Your task to perform on an android device: open the mobile data screen to see how much data has been used Image 0: 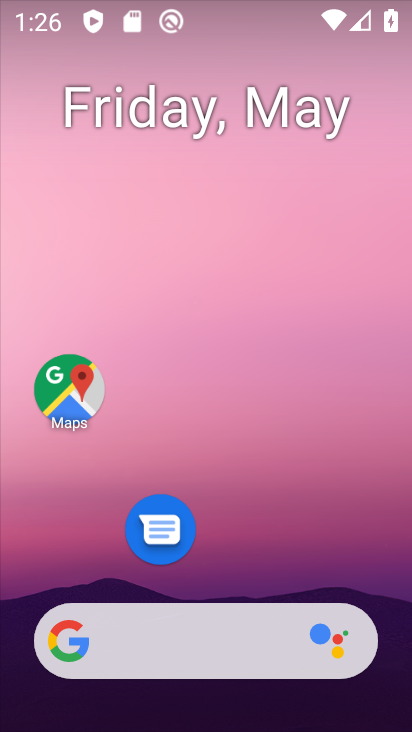
Step 0: drag from (211, 55) to (103, 41)
Your task to perform on an android device: open the mobile data screen to see how much data has been used Image 1: 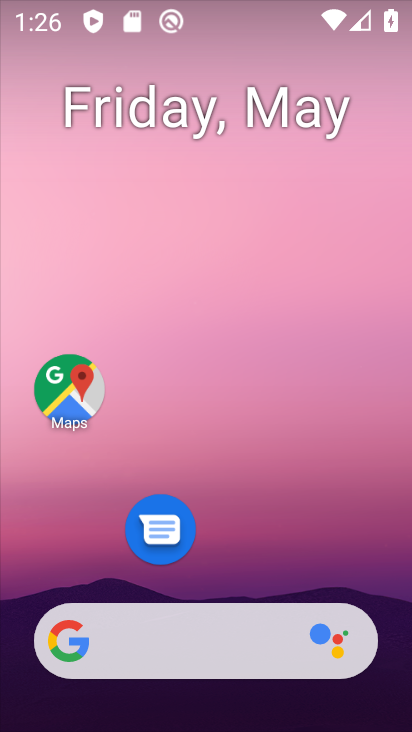
Step 1: drag from (202, 559) to (160, 31)
Your task to perform on an android device: open the mobile data screen to see how much data has been used Image 2: 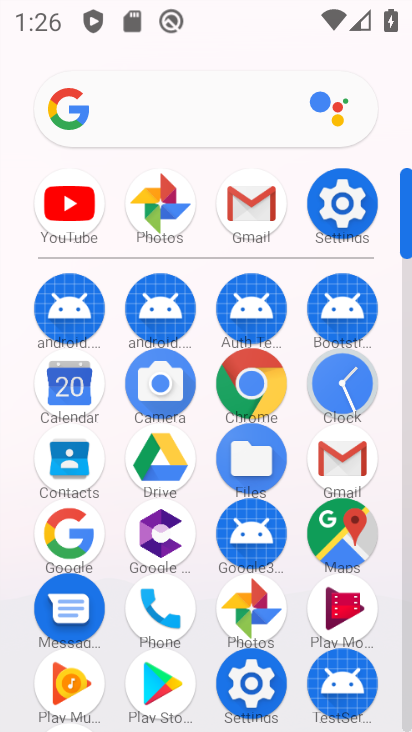
Step 2: click (347, 206)
Your task to perform on an android device: open the mobile data screen to see how much data has been used Image 3: 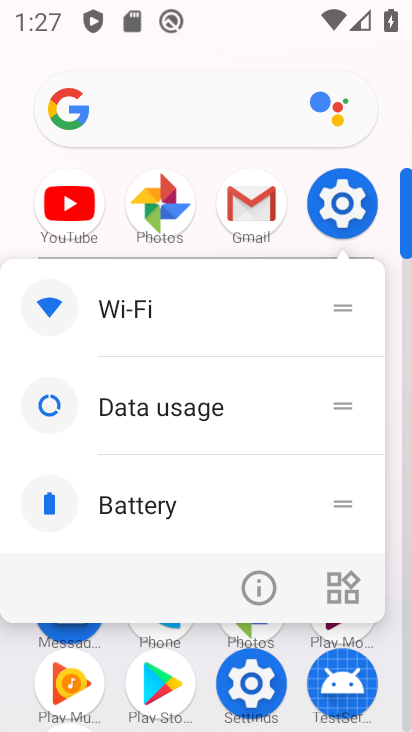
Step 3: click (265, 583)
Your task to perform on an android device: open the mobile data screen to see how much data has been used Image 4: 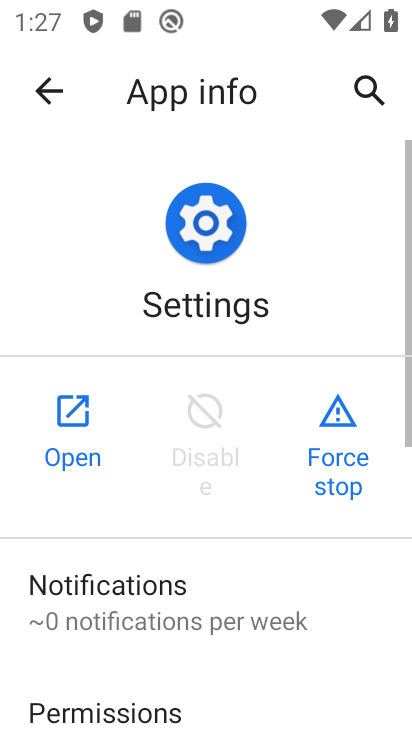
Step 4: click (81, 415)
Your task to perform on an android device: open the mobile data screen to see how much data has been used Image 5: 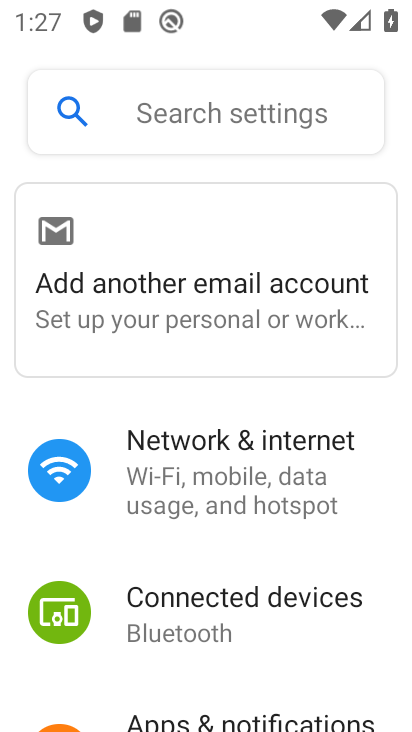
Step 5: drag from (233, 668) to (254, 445)
Your task to perform on an android device: open the mobile data screen to see how much data has been used Image 6: 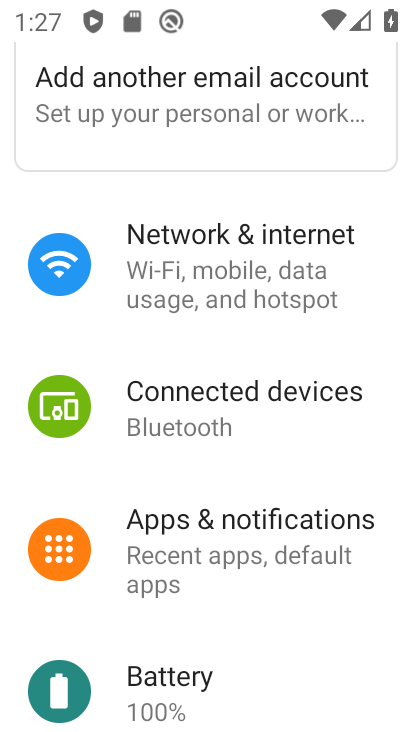
Step 6: click (179, 274)
Your task to perform on an android device: open the mobile data screen to see how much data has been used Image 7: 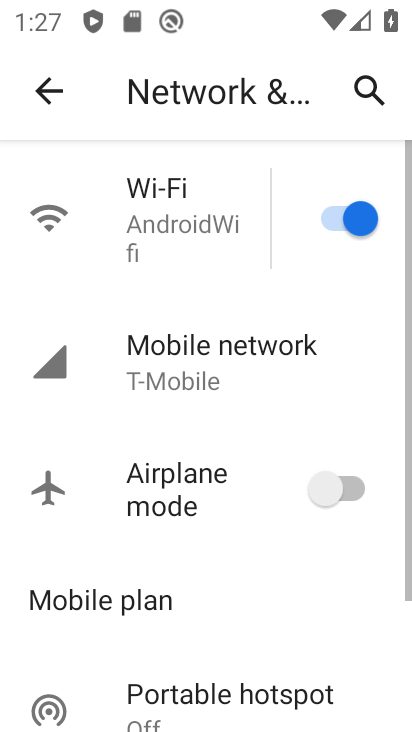
Step 7: click (160, 377)
Your task to perform on an android device: open the mobile data screen to see how much data has been used Image 8: 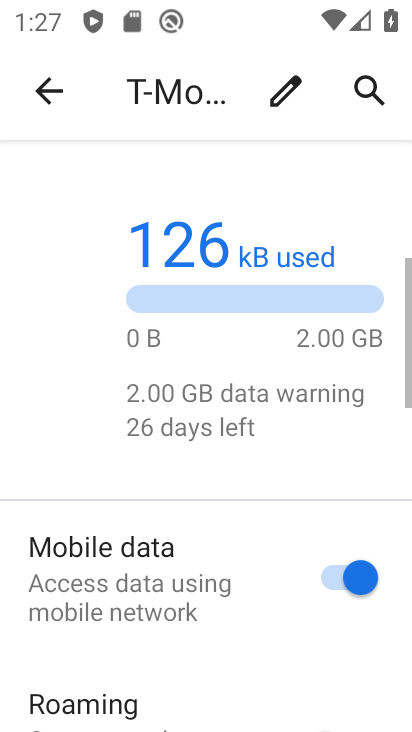
Step 8: task complete